Your task to perform on an android device: Open Google Chrome Image 0: 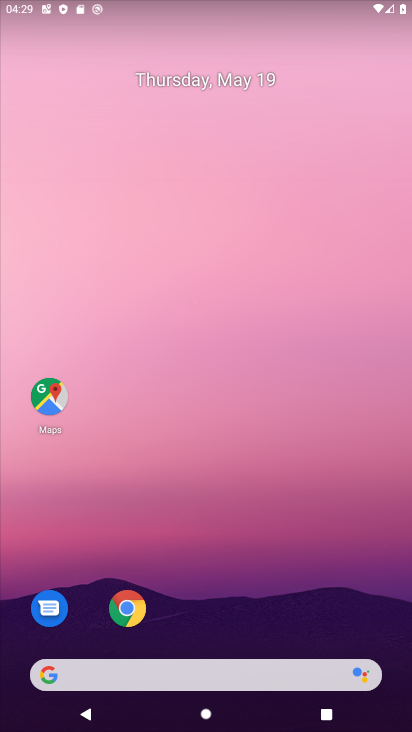
Step 0: click (128, 608)
Your task to perform on an android device: Open Google Chrome Image 1: 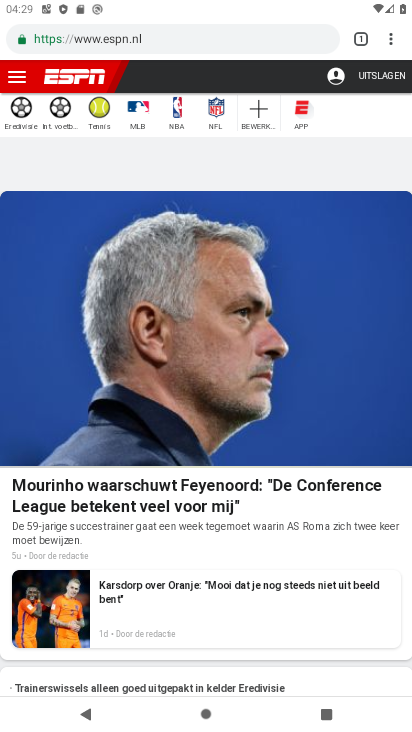
Step 1: task complete